Your task to perform on an android device: change the clock display to show seconds Image 0: 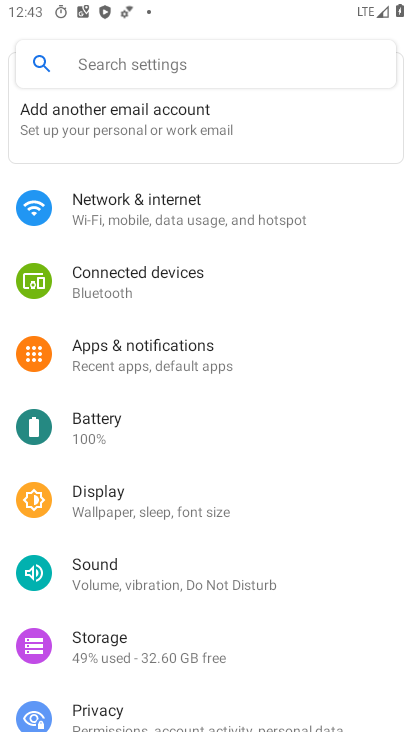
Step 0: press home button
Your task to perform on an android device: change the clock display to show seconds Image 1: 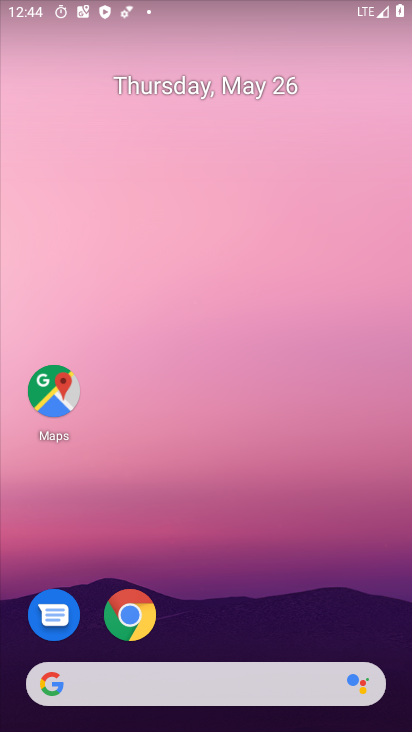
Step 1: drag from (232, 633) to (256, 268)
Your task to perform on an android device: change the clock display to show seconds Image 2: 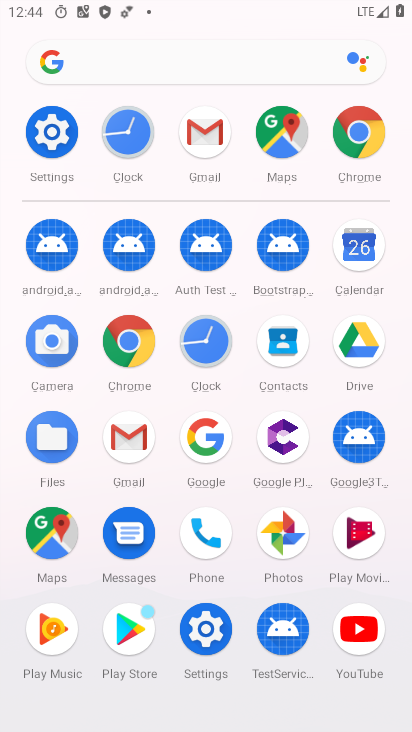
Step 2: click (133, 135)
Your task to perform on an android device: change the clock display to show seconds Image 3: 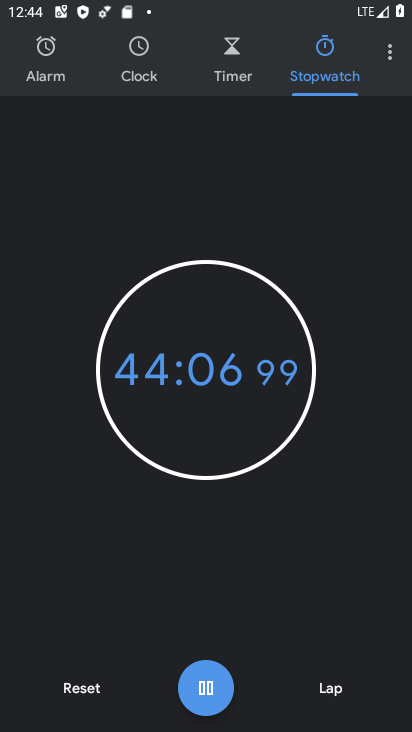
Step 3: click (390, 57)
Your task to perform on an android device: change the clock display to show seconds Image 4: 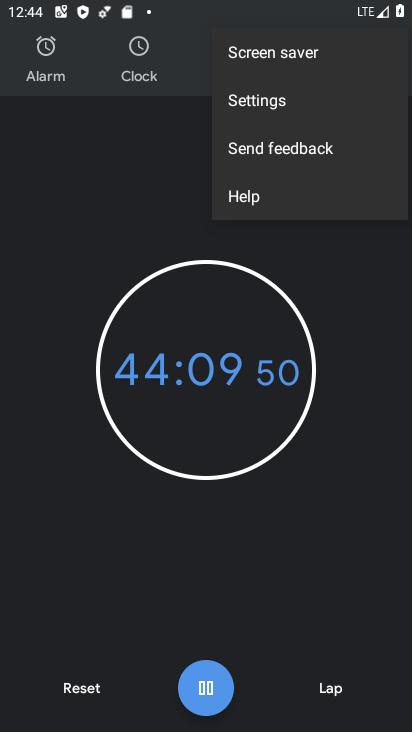
Step 4: click (298, 118)
Your task to perform on an android device: change the clock display to show seconds Image 5: 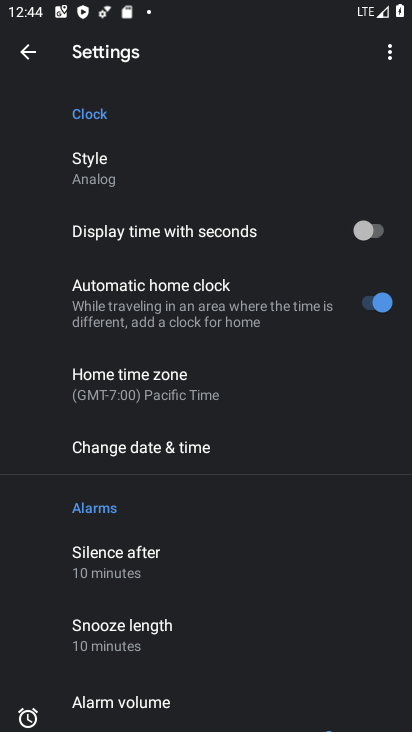
Step 5: click (368, 243)
Your task to perform on an android device: change the clock display to show seconds Image 6: 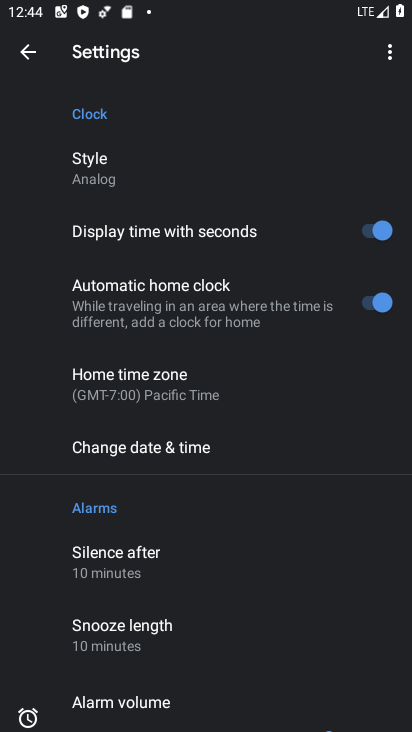
Step 6: task complete